Your task to perform on an android device: uninstall "Google Translate" Image 0: 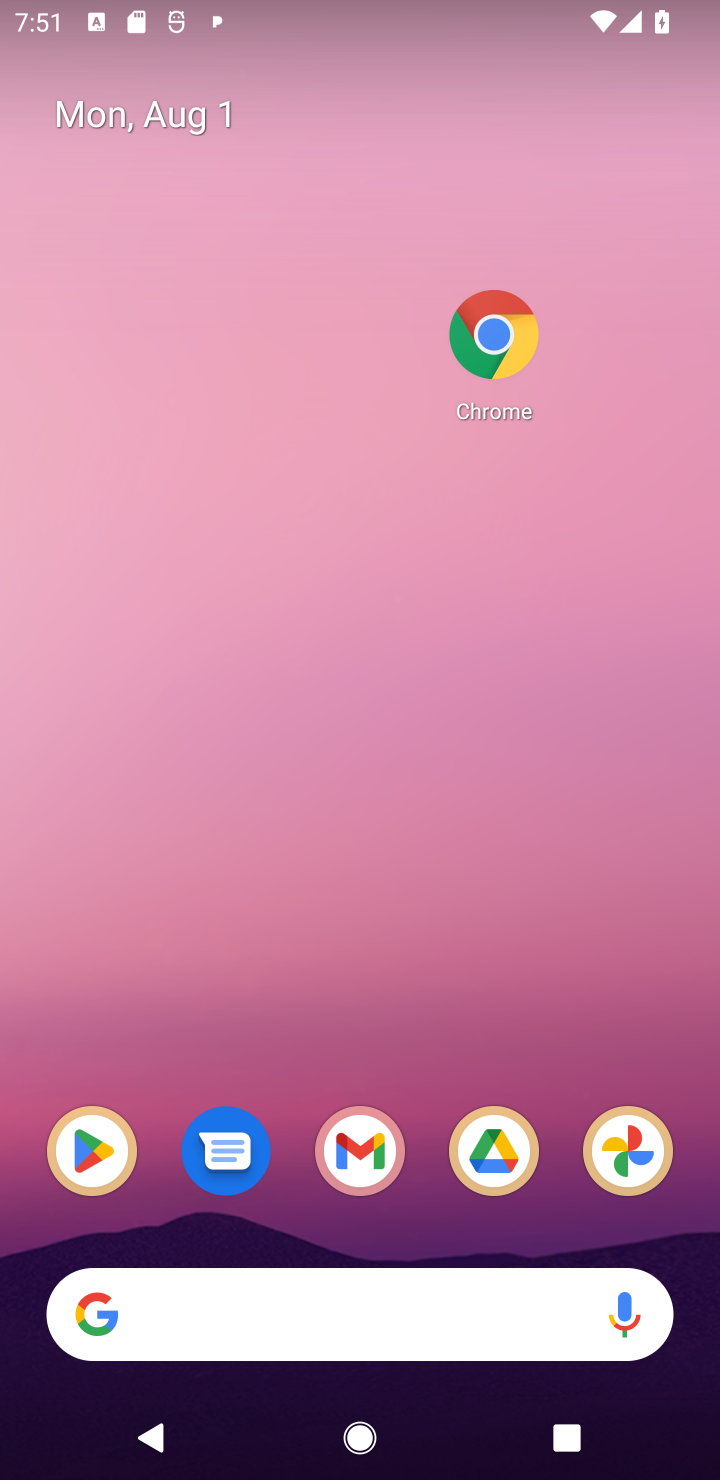
Step 0: click (96, 1158)
Your task to perform on an android device: uninstall "Google Translate" Image 1: 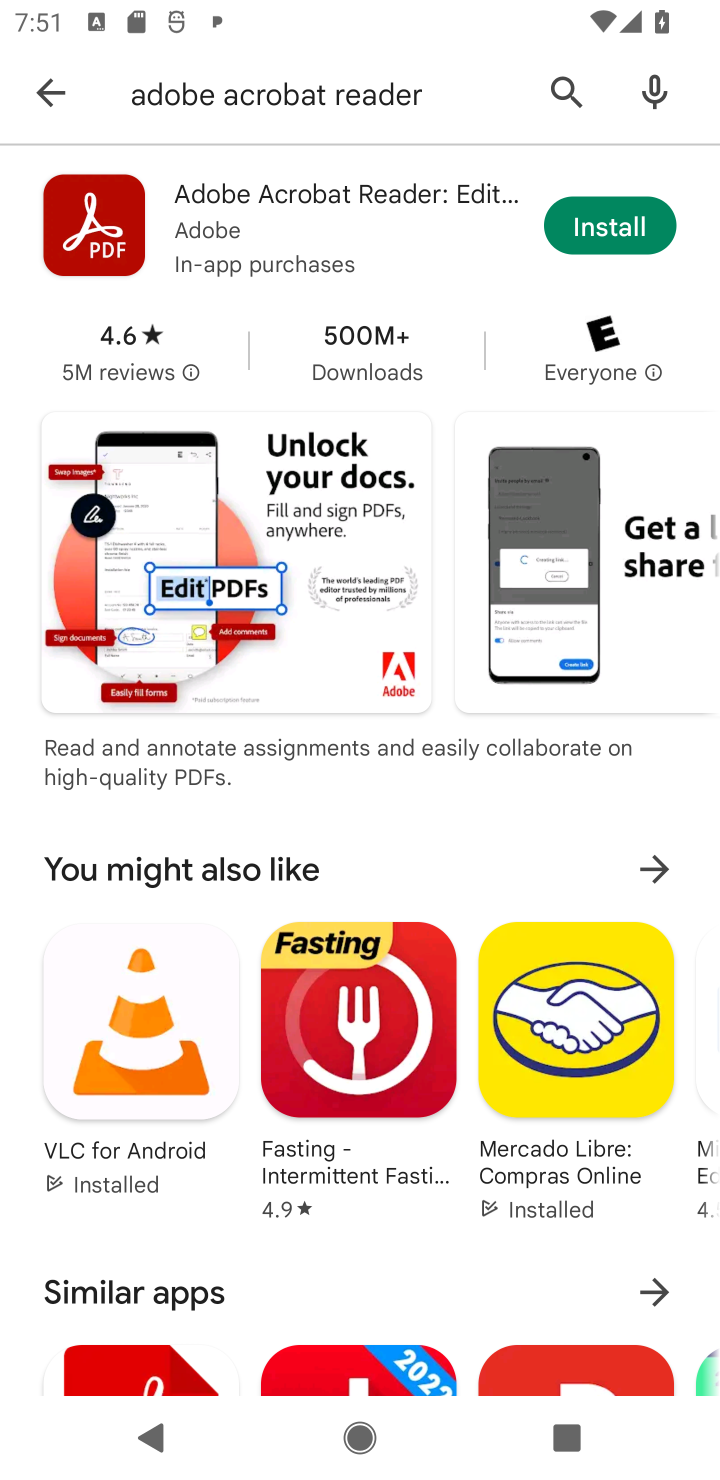
Step 1: click (578, 101)
Your task to perform on an android device: uninstall "Google Translate" Image 2: 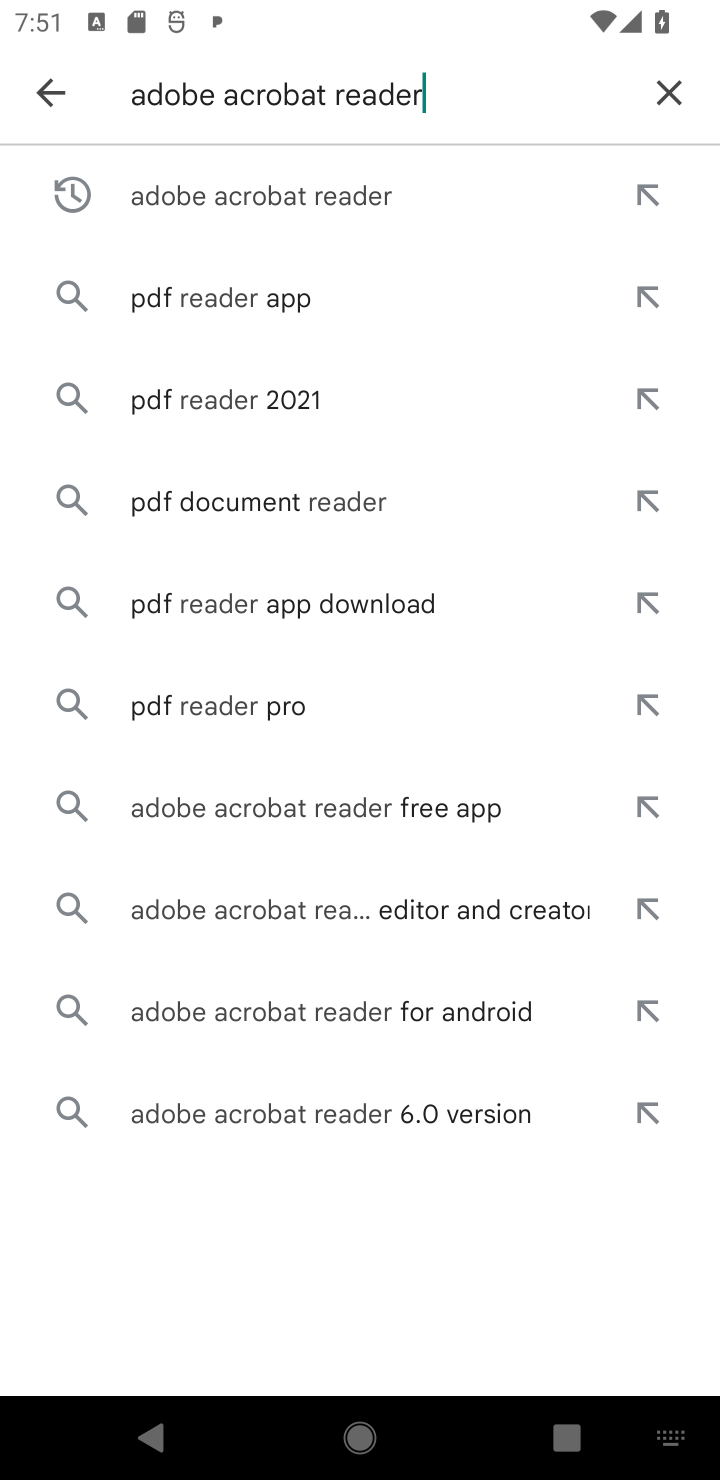
Step 2: click (675, 99)
Your task to perform on an android device: uninstall "Google Translate" Image 3: 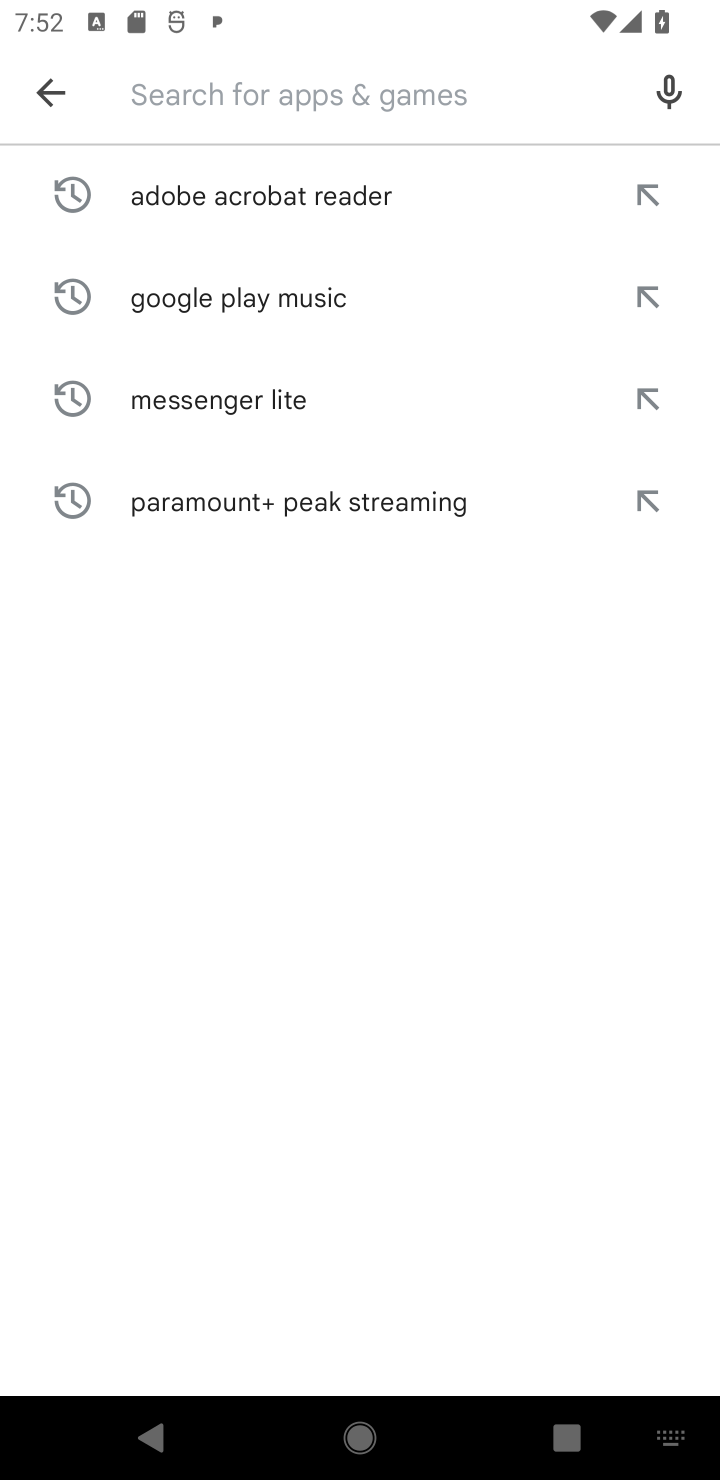
Step 3: type "Google Translate"
Your task to perform on an android device: uninstall "Google Translate" Image 4: 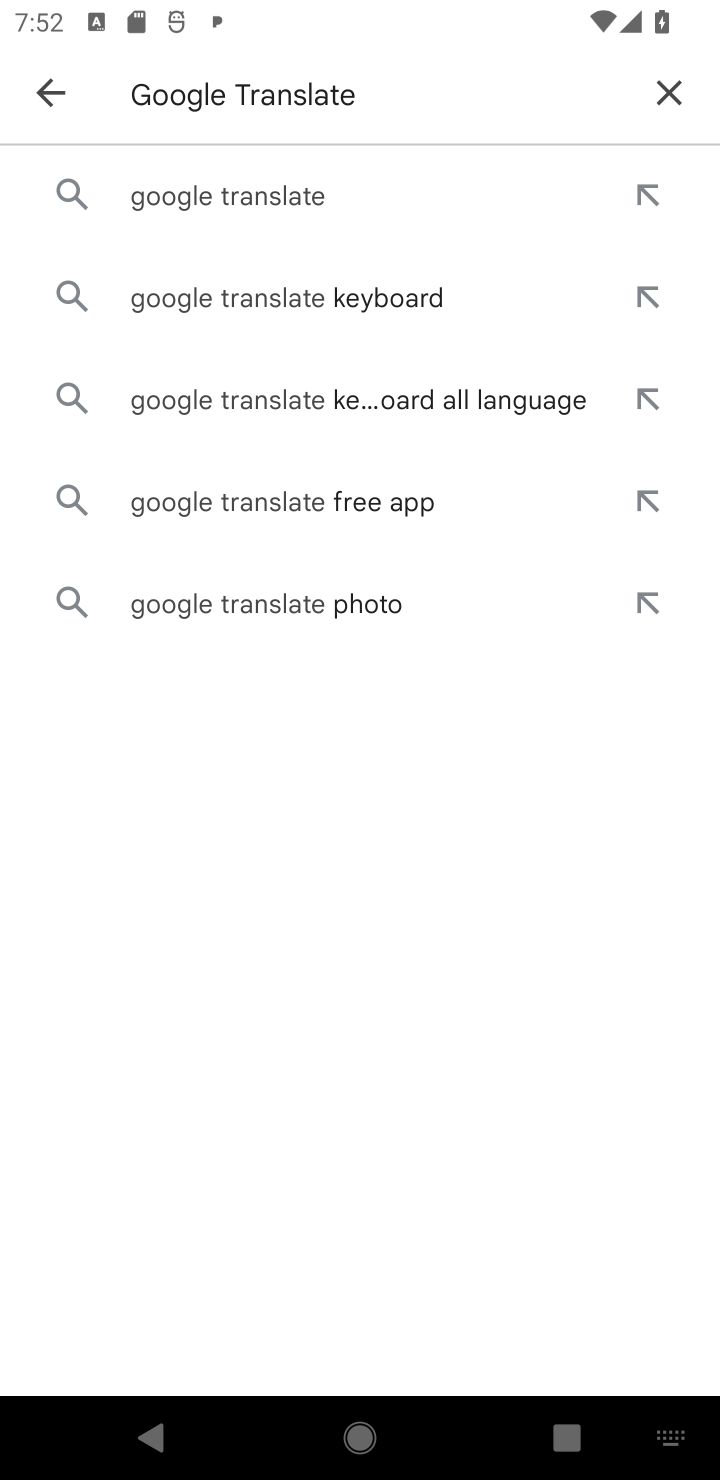
Step 4: click (250, 205)
Your task to perform on an android device: uninstall "Google Translate" Image 5: 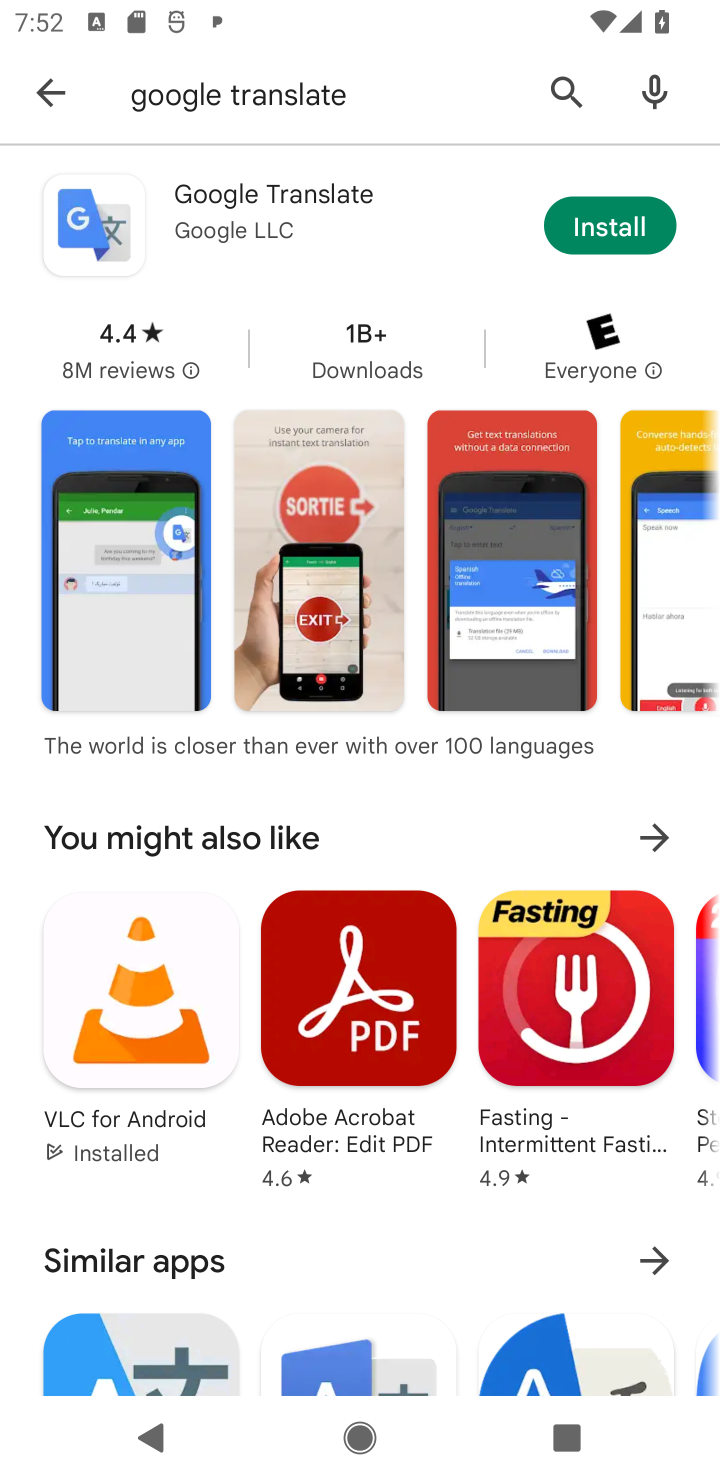
Step 5: task complete